Your task to perform on an android device: check google app version Image 0: 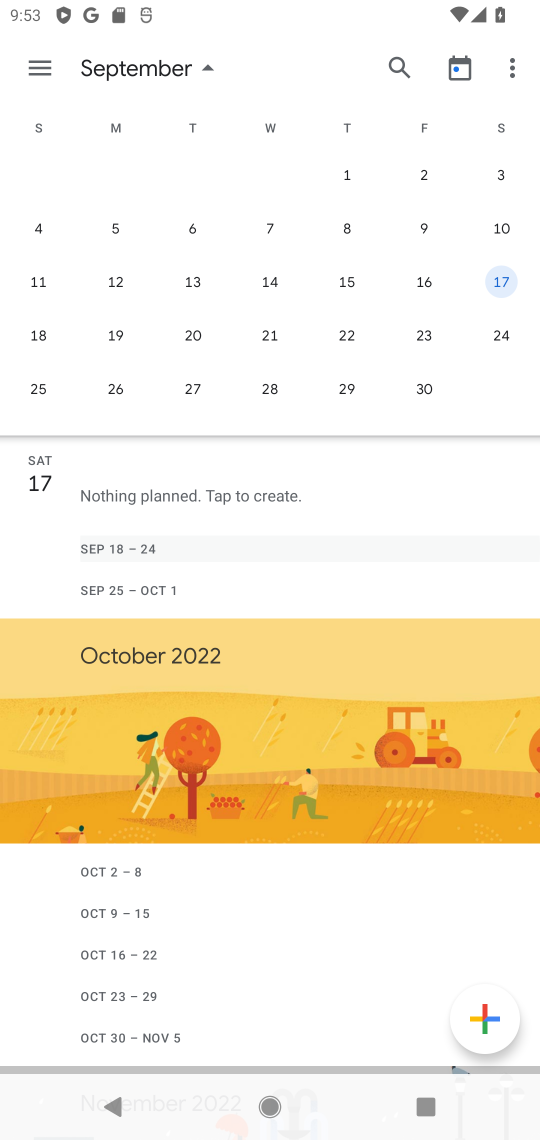
Step 0: press home button
Your task to perform on an android device: check google app version Image 1: 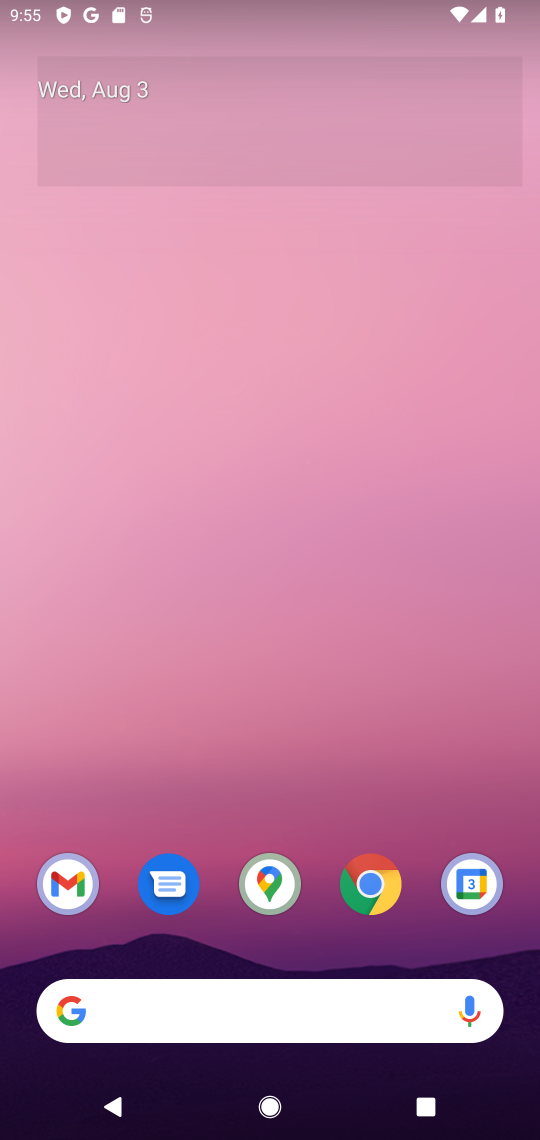
Step 1: drag from (246, 947) to (354, 146)
Your task to perform on an android device: check google app version Image 2: 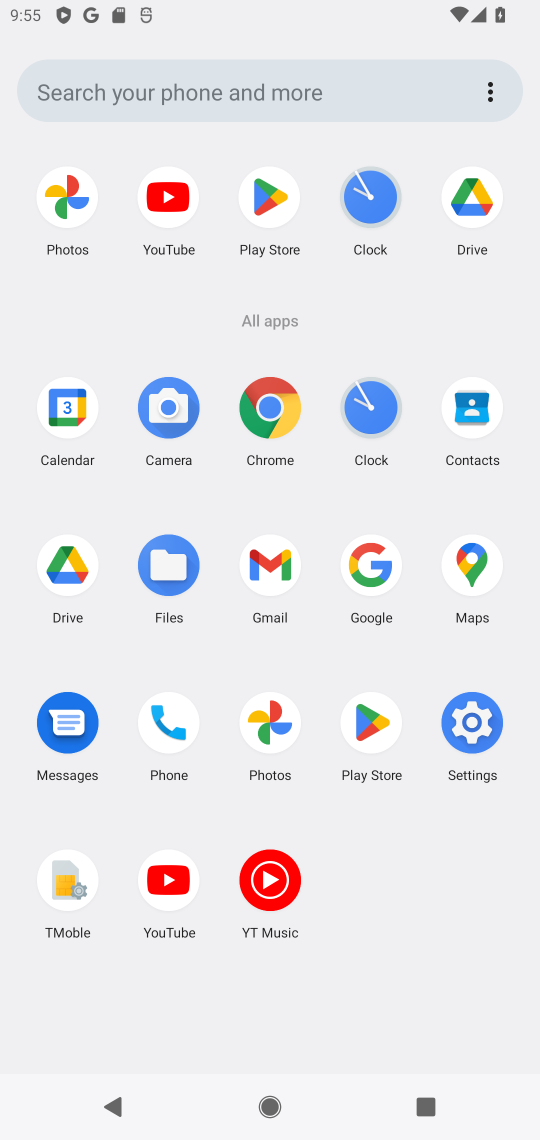
Step 2: click (375, 569)
Your task to perform on an android device: check google app version Image 3: 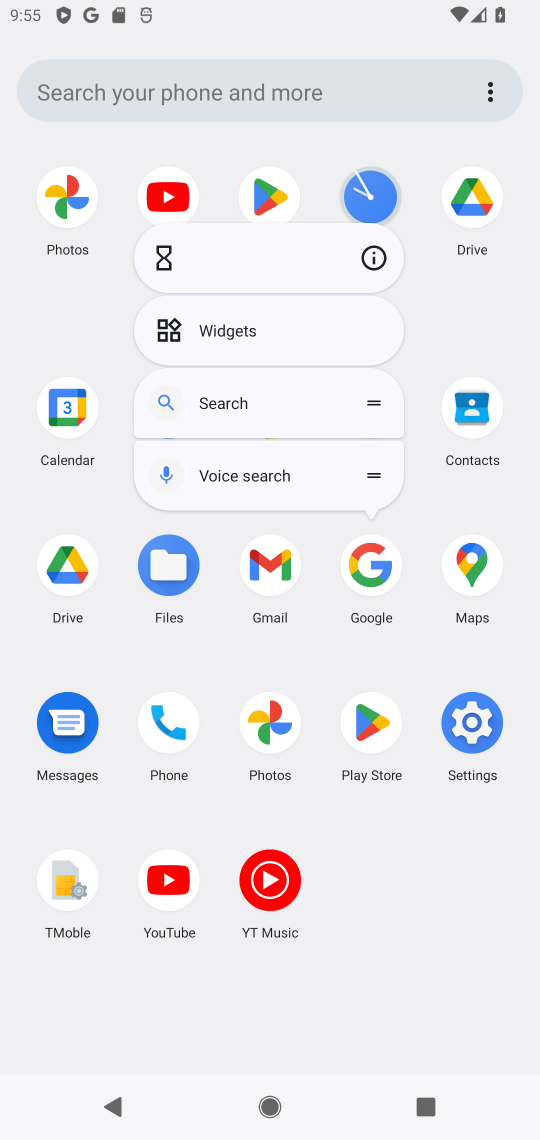
Step 3: click (379, 256)
Your task to perform on an android device: check google app version Image 4: 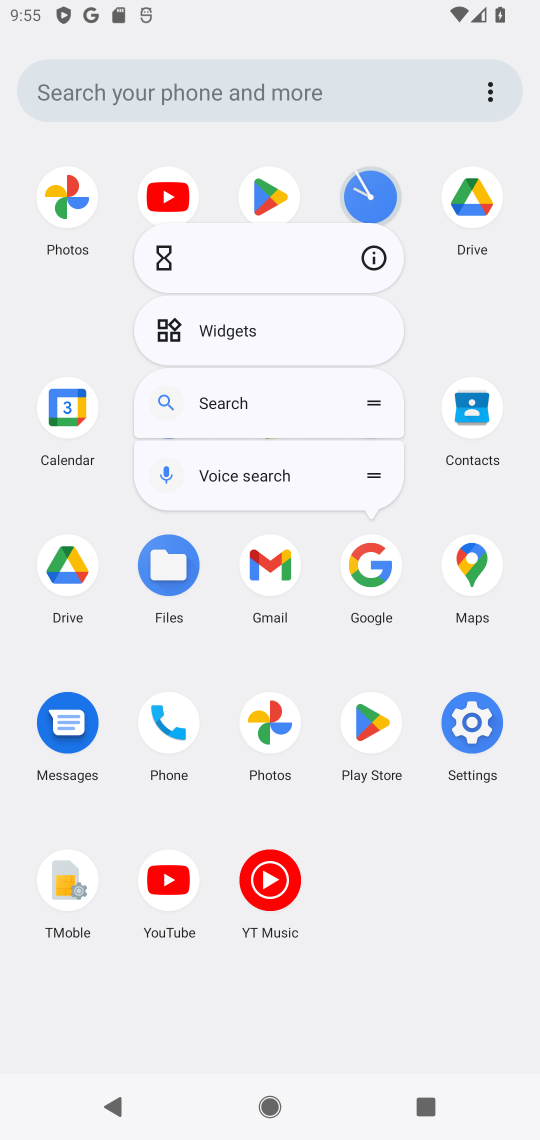
Step 4: click (375, 264)
Your task to perform on an android device: check google app version Image 5: 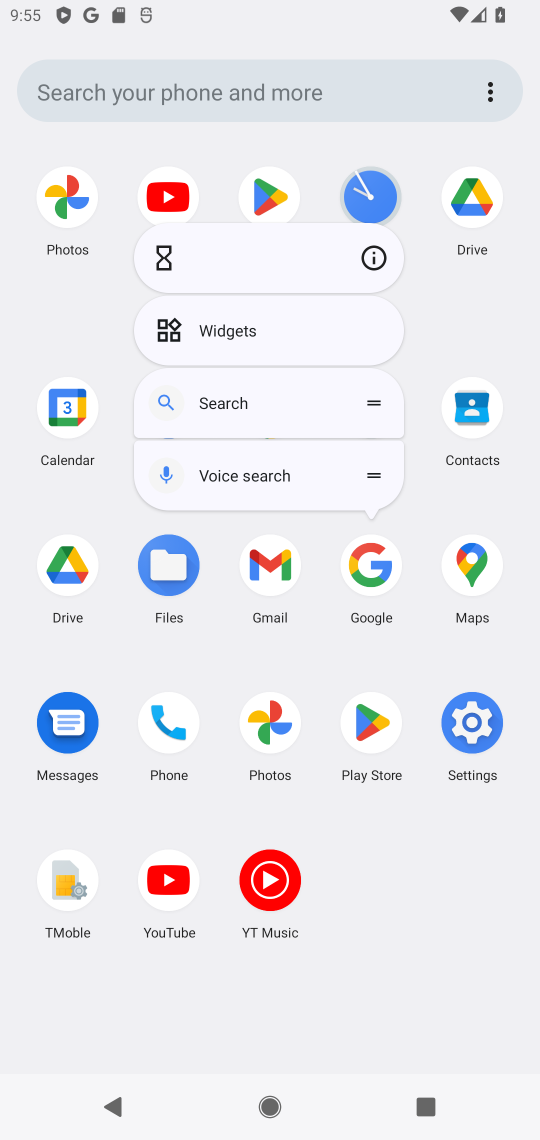
Step 5: click (375, 251)
Your task to perform on an android device: check google app version Image 6: 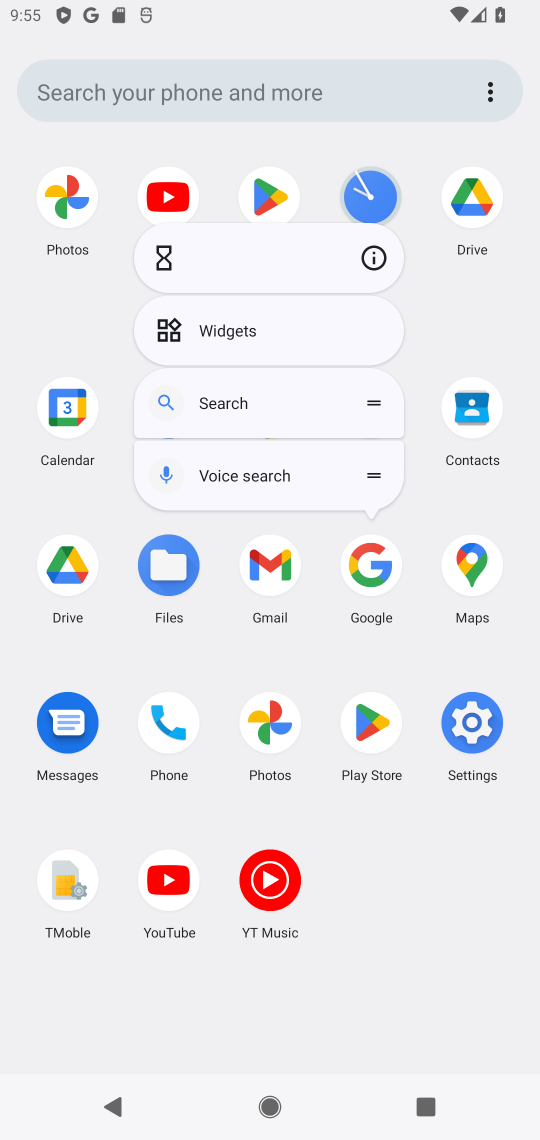
Step 6: click (377, 256)
Your task to perform on an android device: check google app version Image 7: 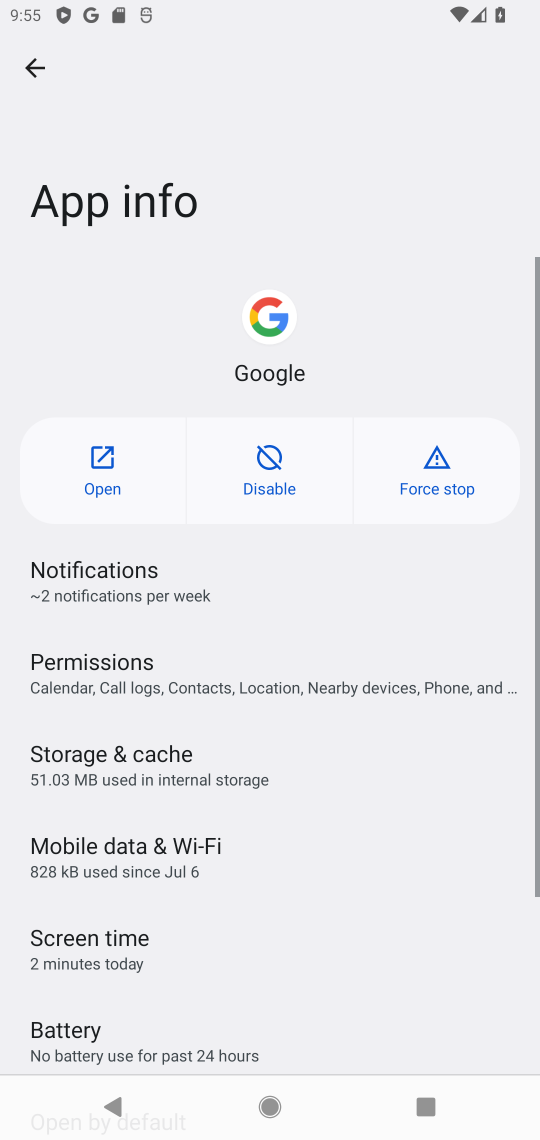
Step 7: task complete